Your task to perform on an android device: Go to notification settings Image 0: 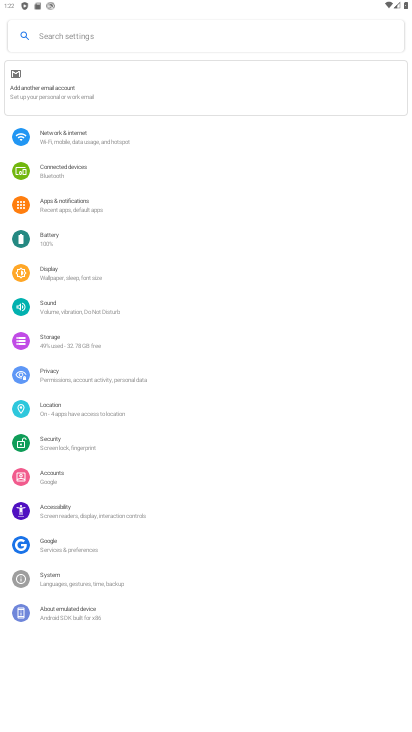
Step 0: press home button
Your task to perform on an android device: Go to notification settings Image 1: 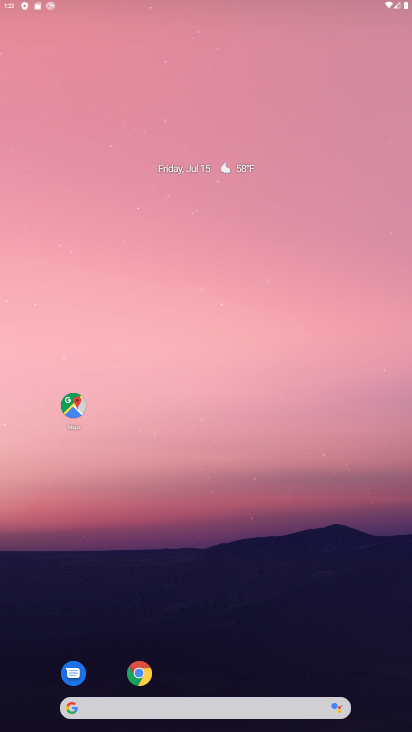
Step 1: drag from (228, 496) to (280, 113)
Your task to perform on an android device: Go to notification settings Image 2: 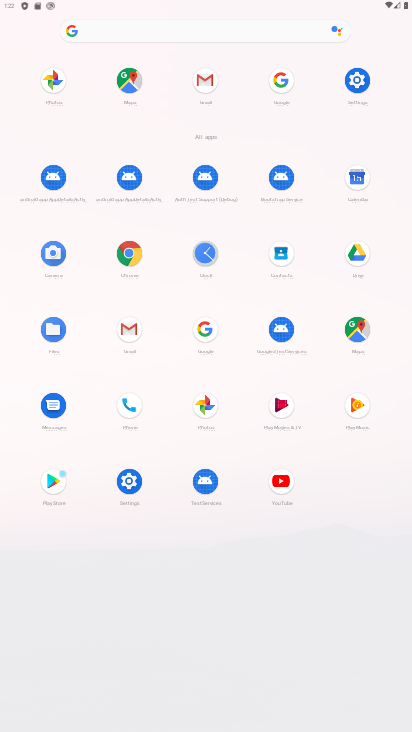
Step 2: click (356, 82)
Your task to perform on an android device: Go to notification settings Image 3: 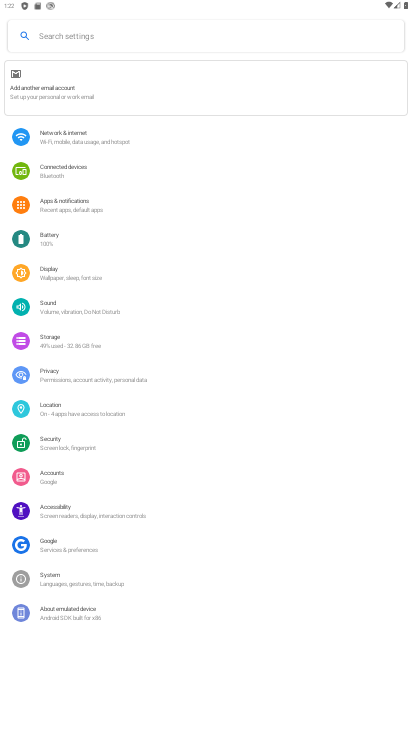
Step 3: click (96, 208)
Your task to perform on an android device: Go to notification settings Image 4: 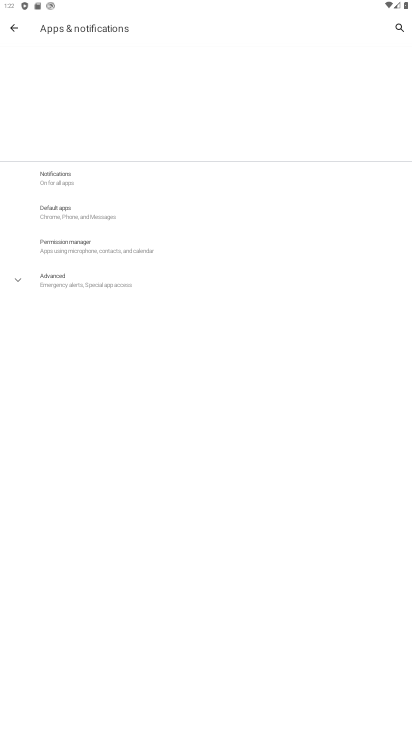
Step 4: click (79, 175)
Your task to perform on an android device: Go to notification settings Image 5: 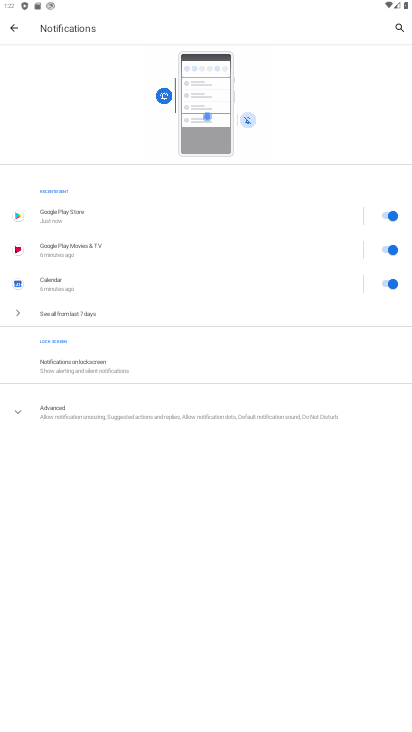
Step 5: task complete